Your task to perform on an android device: Go to Amazon Image 0: 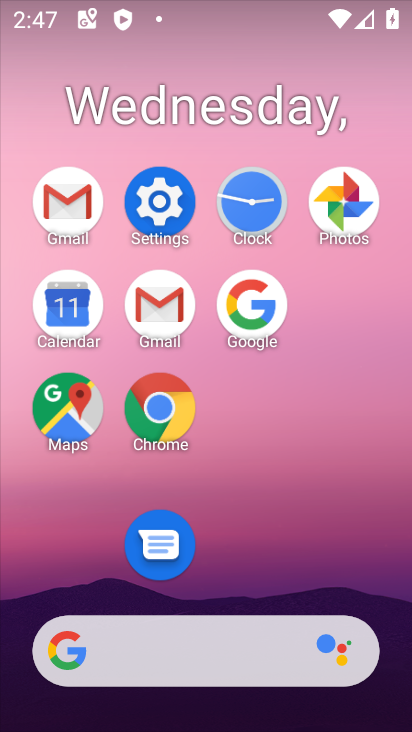
Step 0: click (175, 423)
Your task to perform on an android device: Go to Amazon Image 1: 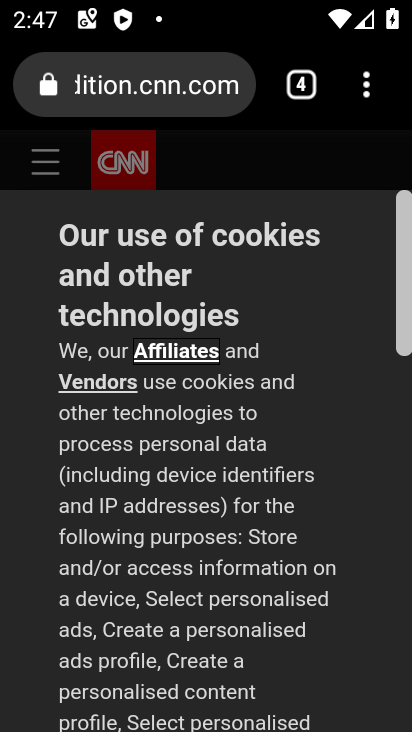
Step 1: click (313, 73)
Your task to perform on an android device: Go to Amazon Image 2: 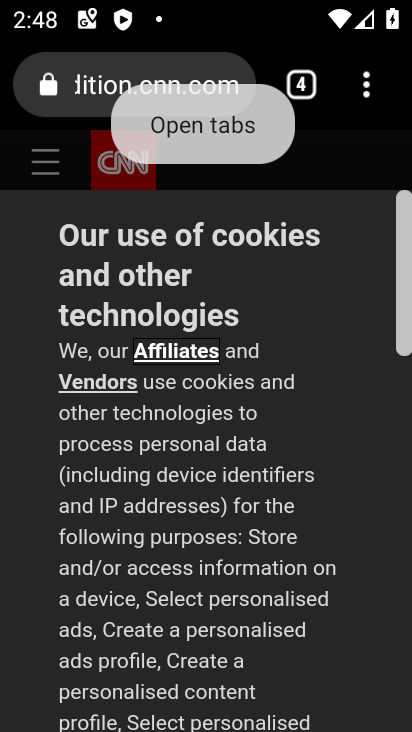
Step 2: click (298, 72)
Your task to perform on an android device: Go to Amazon Image 3: 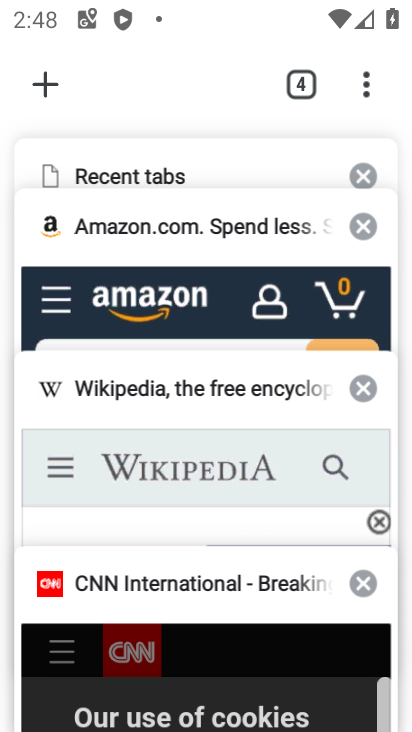
Step 3: click (183, 232)
Your task to perform on an android device: Go to Amazon Image 4: 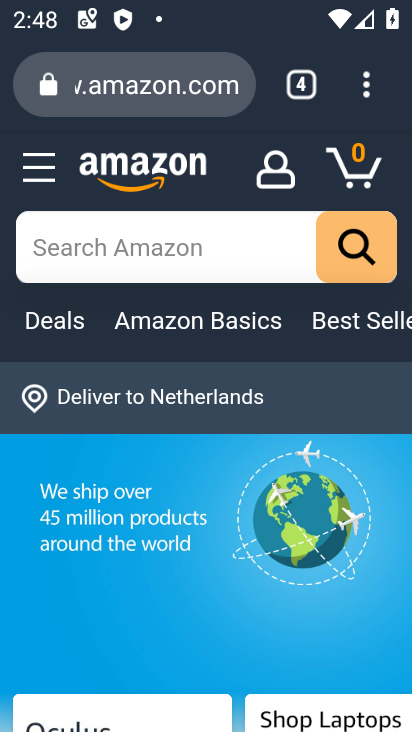
Step 4: task complete